Your task to perform on an android device: Do I have any events this weekend? Image 0: 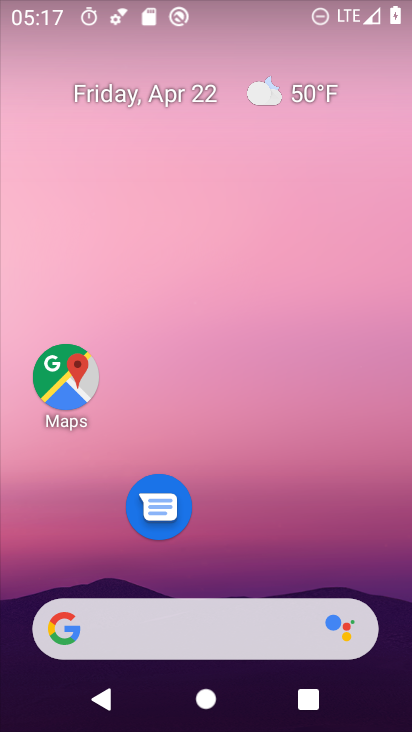
Step 0: drag from (209, 473) to (263, 96)
Your task to perform on an android device: Do I have any events this weekend? Image 1: 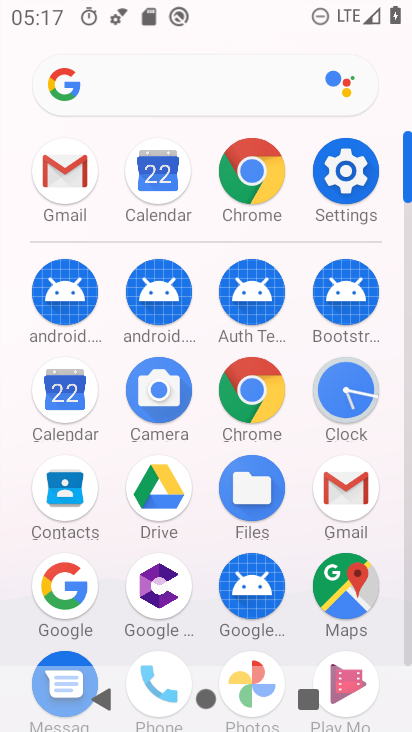
Step 1: click (72, 389)
Your task to perform on an android device: Do I have any events this weekend? Image 2: 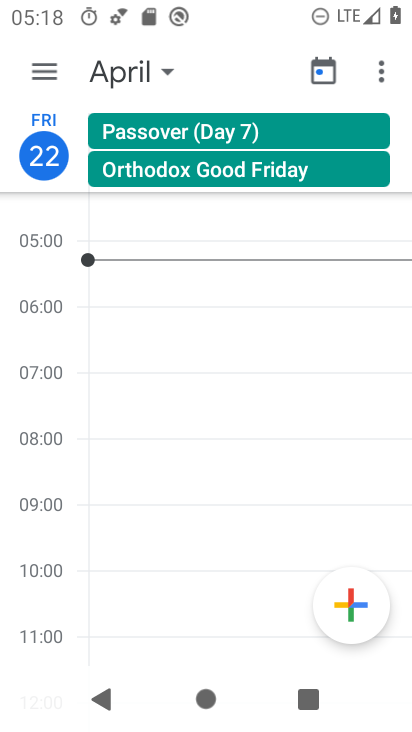
Step 2: click (36, 65)
Your task to perform on an android device: Do I have any events this weekend? Image 3: 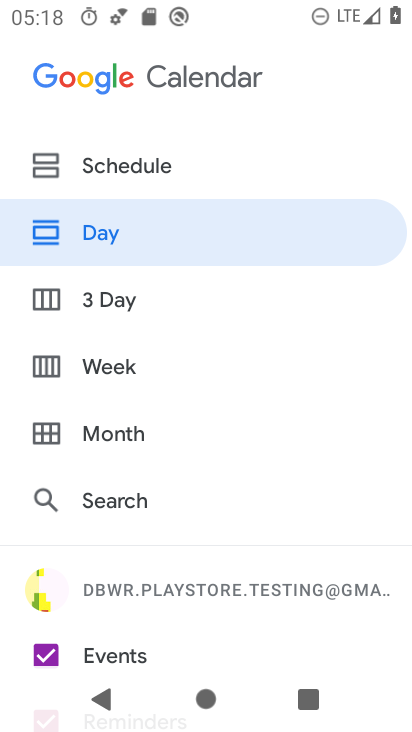
Step 3: click (152, 165)
Your task to perform on an android device: Do I have any events this weekend? Image 4: 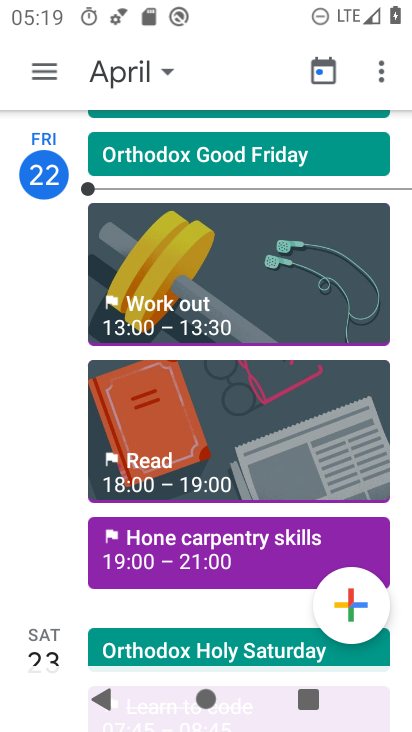
Step 4: drag from (206, 611) to (276, 105)
Your task to perform on an android device: Do I have any events this weekend? Image 5: 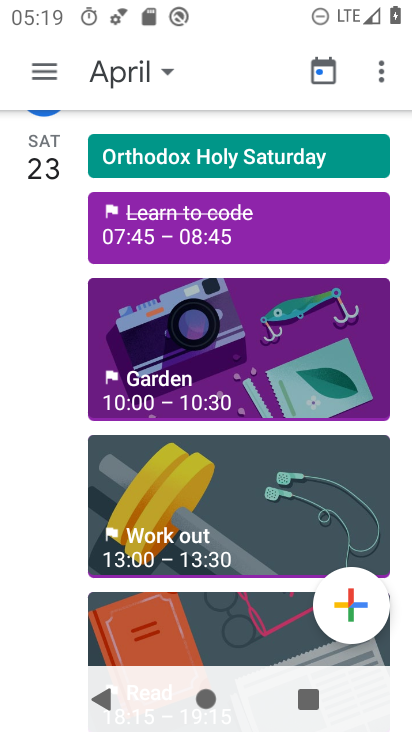
Step 5: drag from (215, 591) to (292, 100)
Your task to perform on an android device: Do I have any events this weekend? Image 6: 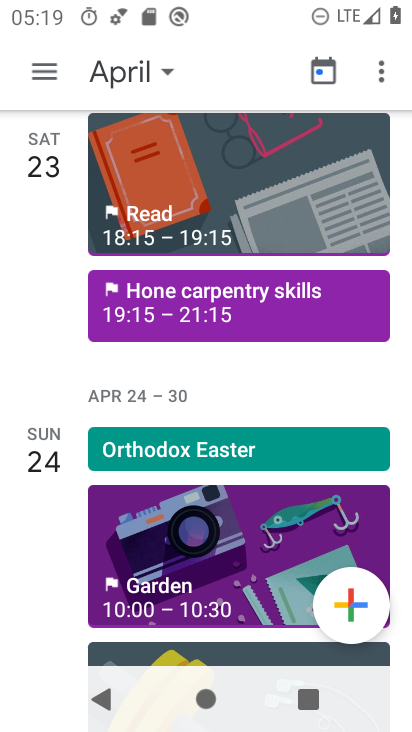
Step 6: click (199, 470)
Your task to perform on an android device: Do I have any events this weekend? Image 7: 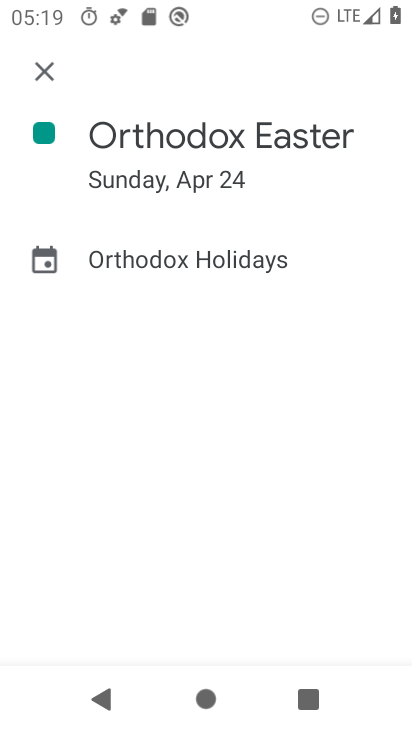
Step 7: task complete